Your task to perform on an android device: What's the weather? Image 0: 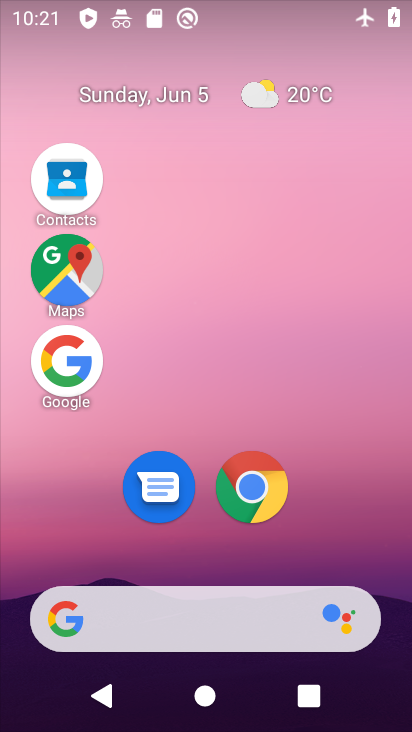
Step 0: drag from (224, 603) to (90, 47)
Your task to perform on an android device: What's the weather? Image 1: 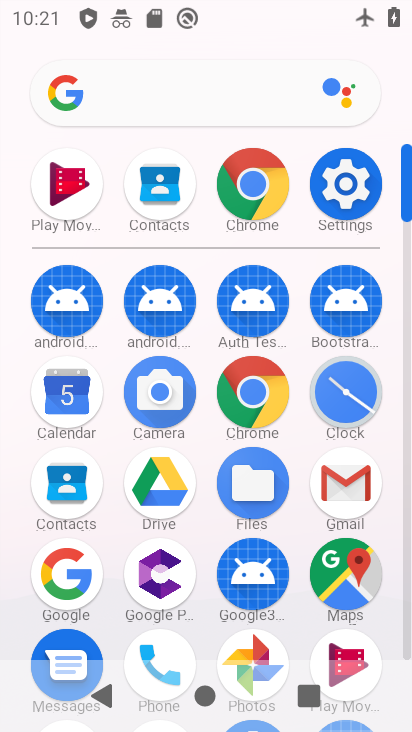
Step 1: click (49, 603)
Your task to perform on an android device: What's the weather? Image 2: 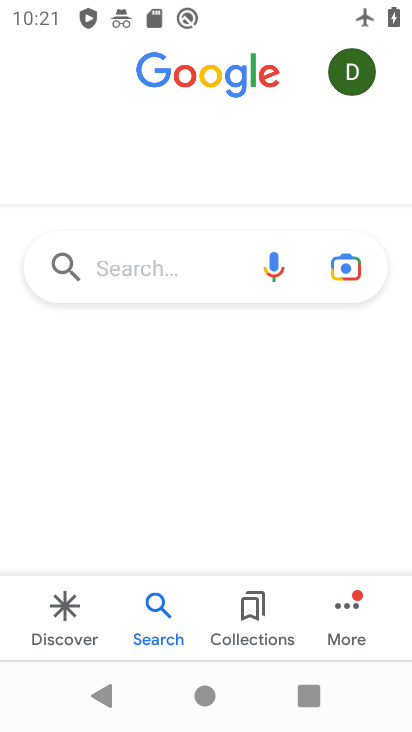
Step 2: click (182, 274)
Your task to perform on an android device: What's the weather? Image 3: 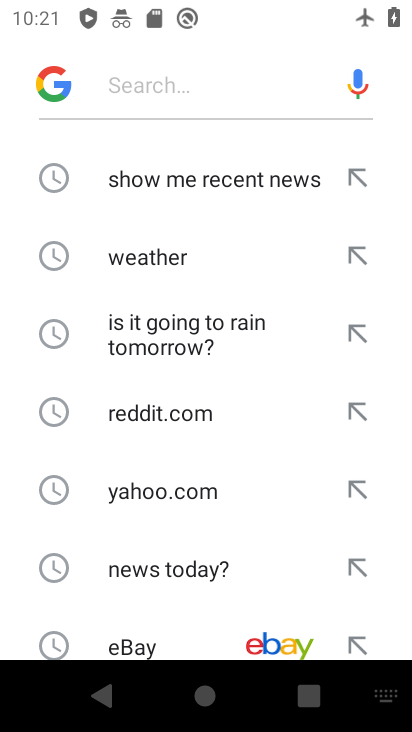
Step 3: click (191, 257)
Your task to perform on an android device: What's the weather? Image 4: 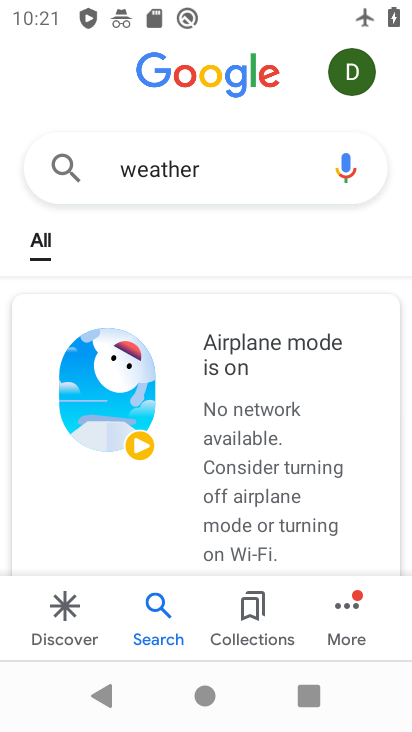
Step 4: task complete